Your task to perform on an android device: Go to battery settings Image 0: 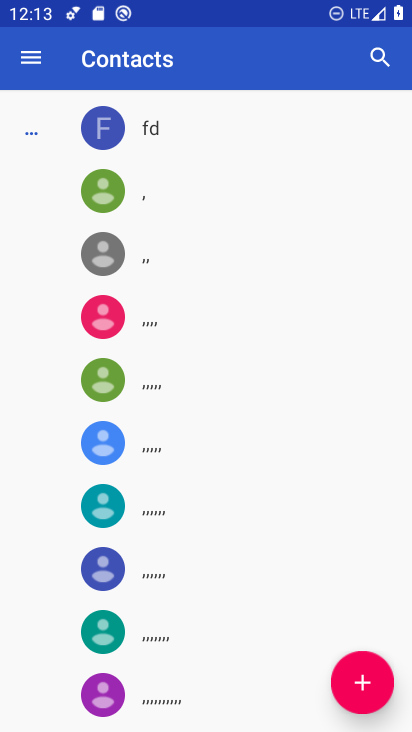
Step 0: press home button
Your task to perform on an android device: Go to battery settings Image 1: 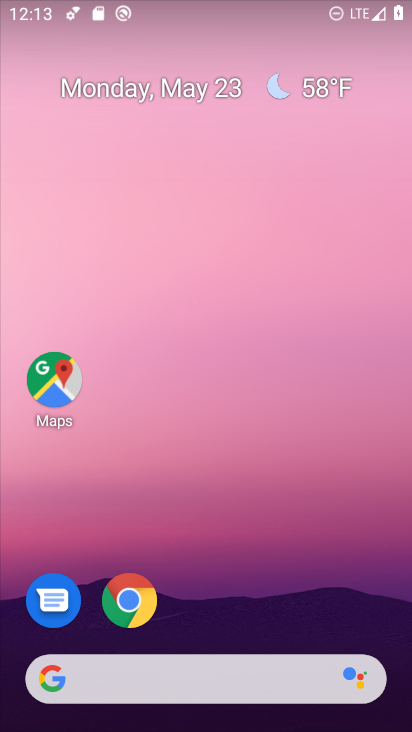
Step 1: drag from (326, 560) to (267, 52)
Your task to perform on an android device: Go to battery settings Image 2: 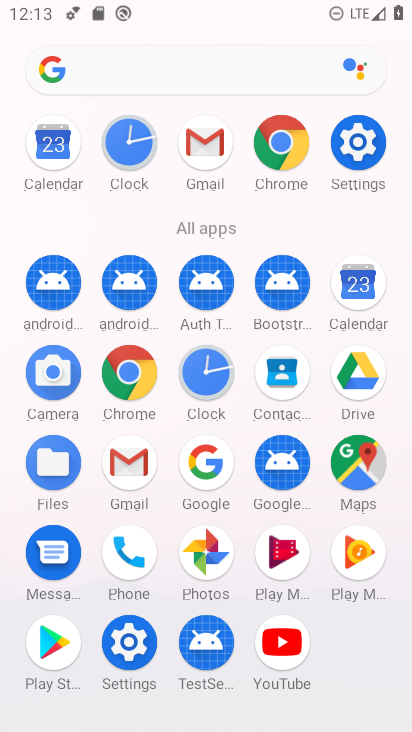
Step 2: click (346, 142)
Your task to perform on an android device: Go to battery settings Image 3: 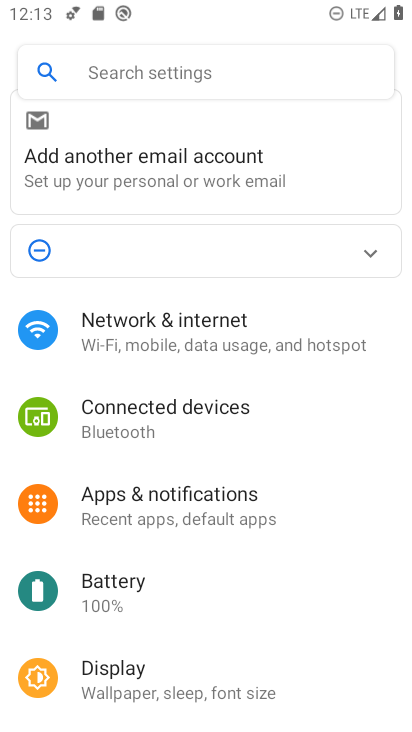
Step 3: drag from (217, 584) to (224, 366)
Your task to perform on an android device: Go to battery settings Image 4: 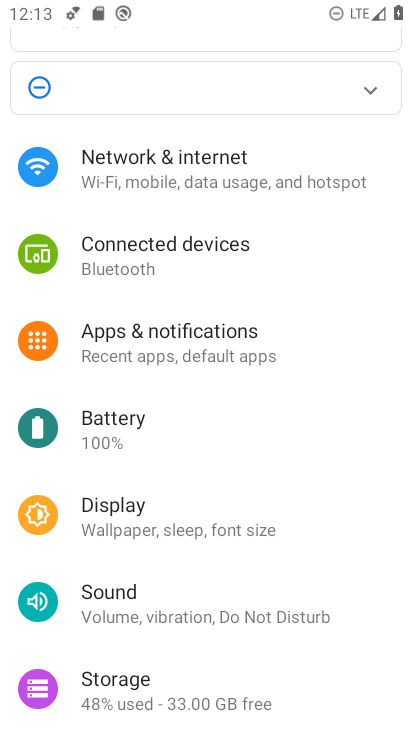
Step 4: click (180, 423)
Your task to perform on an android device: Go to battery settings Image 5: 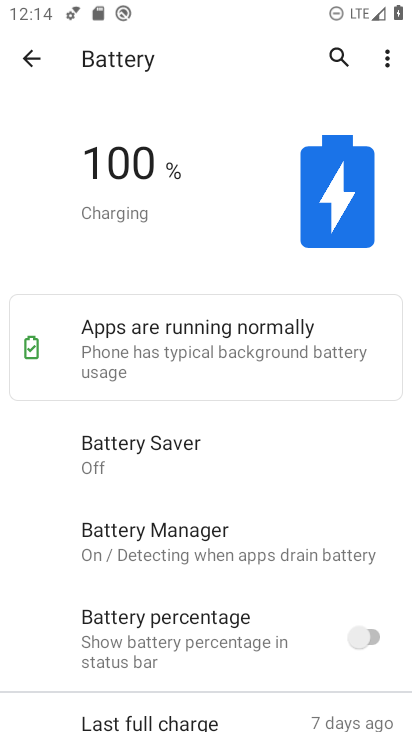
Step 5: task complete